Your task to perform on an android device: make emails show in primary in the gmail app Image 0: 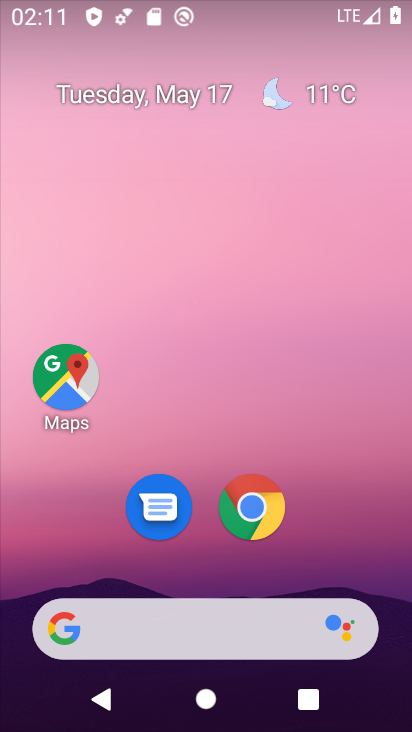
Step 0: drag from (223, 559) to (292, 75)
Your task to perform on an android device: make emails show in primary in the gmail app Image 1: 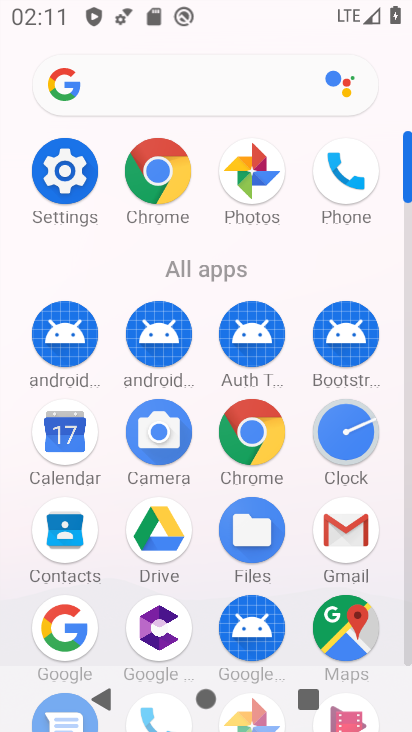
Step 1: click (328, 523)
Your task to perform on an android device: make emails show in primary in the gmail app Image 2: 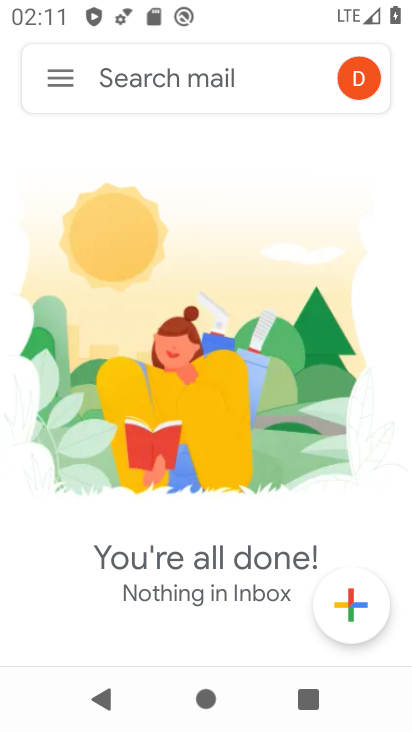
Step 2: click (55, 89)
Your task to perform on an android device: make emails show in primary in the gmail app Image 3: 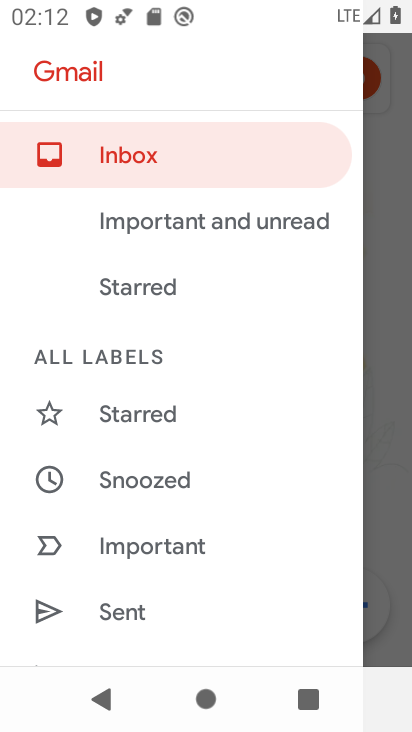
Step 3: task complete